Your task to perform on an android device: star an email in the gmail app Image 0: 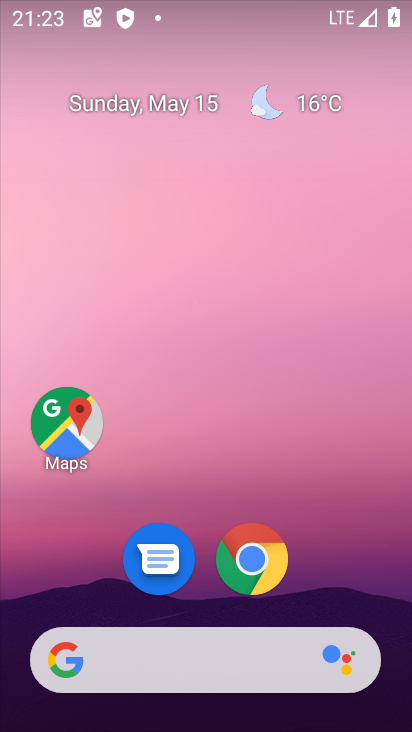
Step 0: drag from (196, 485) to (105, 6)
Your task to perform on an android device: star an email in the gmail app Image 1: 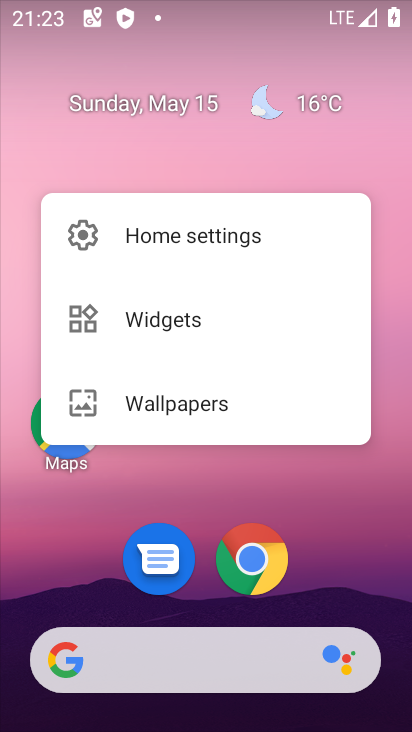
Step 1: click (303, 501)
Your task to perform on an android device: star an email in the gmail app Image 2: 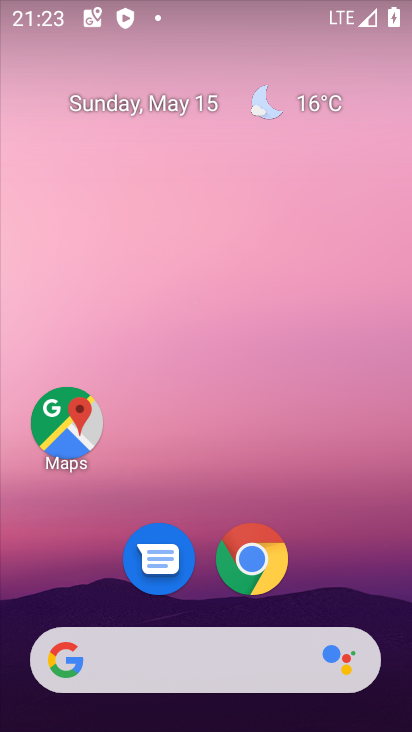
Step 2: drag from (331, 557) to (216, 30)
Your task to perform on an android device: star an email in the gmail app Image 3: 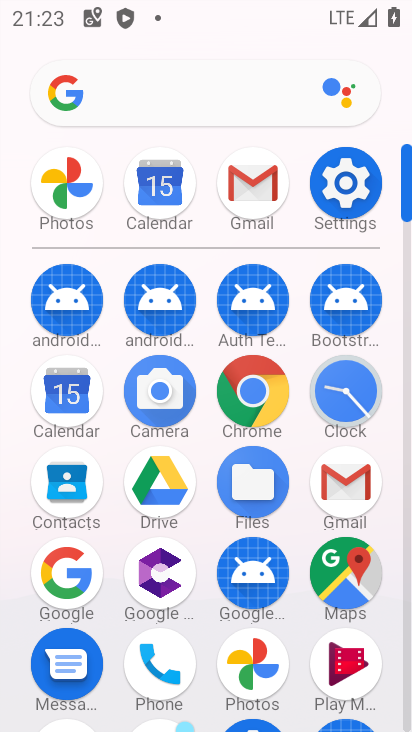
Step 3: click (342, 484)
Your task to perform on an android device: star an email in the gmail app Image 4: 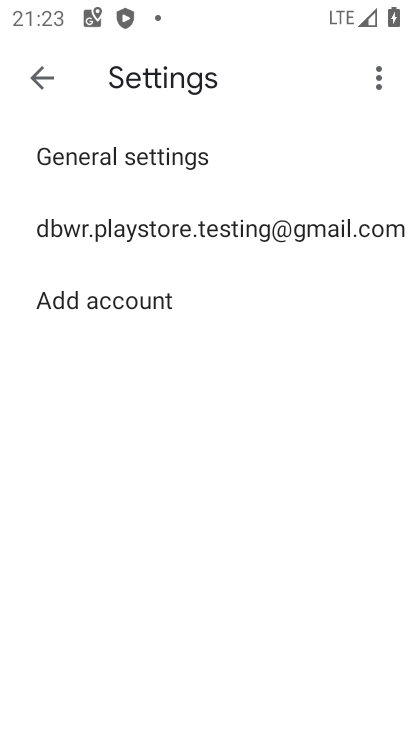
Step 4: click (44, 91)
Your task to perform on an android device: star an email in the gmail app Image 5: 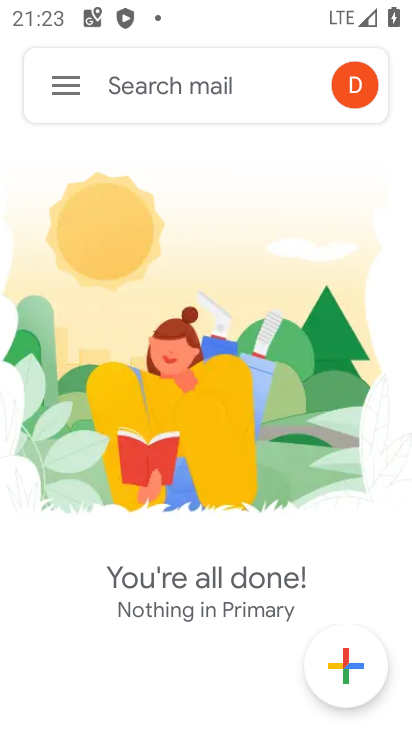
Step 5: click (67, 89)
Your task to perform on an android device: star an email in the gmail app Image 6: 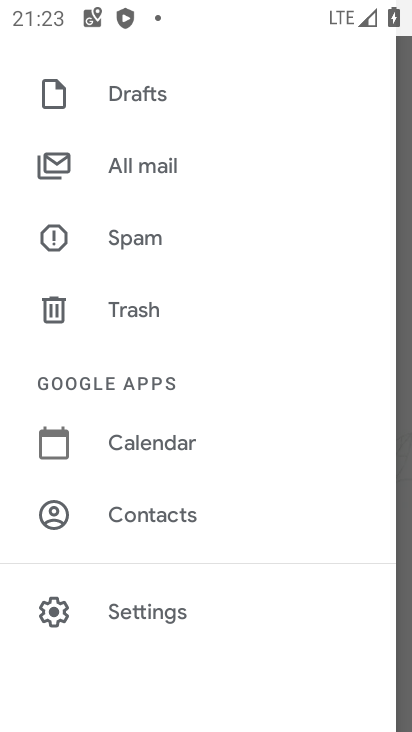
Step 6: click (154, 168)
Your task to perform on an android device: star an email in the gmail app Image 7: 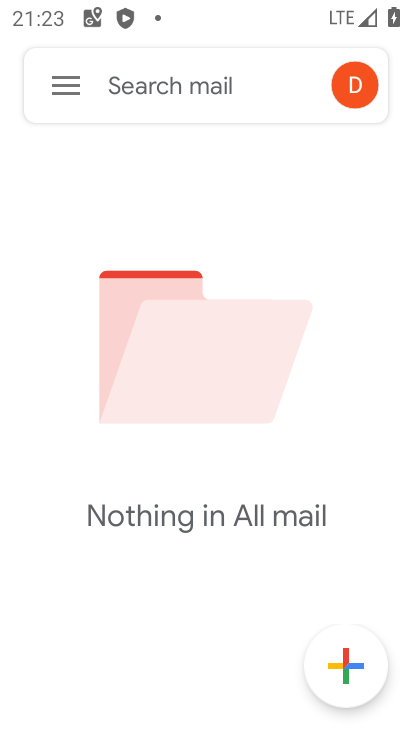
Step 7: task complete